Your task to perform on an android device: Is it going to rain this weekend? Image 0: 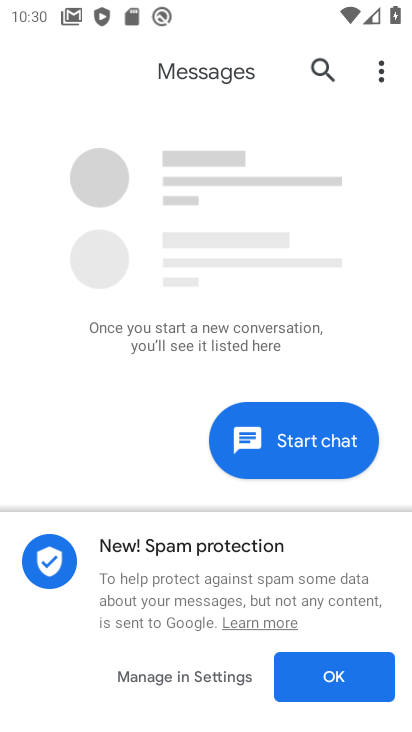
Step 0: press home button
Your task to perform on an android device: Is it going to rain this weekend? Image 1: 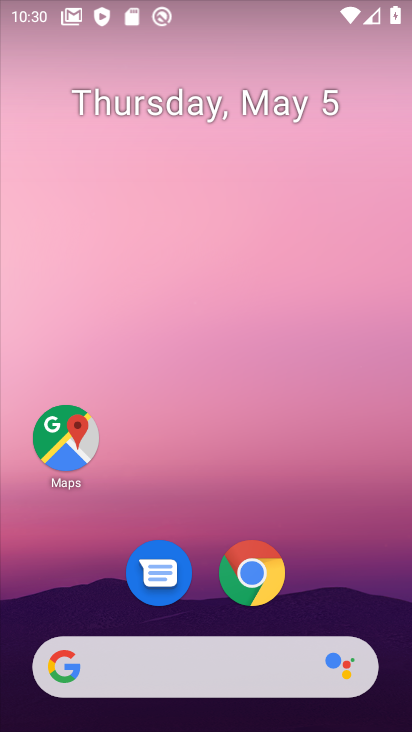
Step 1: click (105, 663)
Your task to perform on an android device: Is it going to rain this weekend? Image 2: 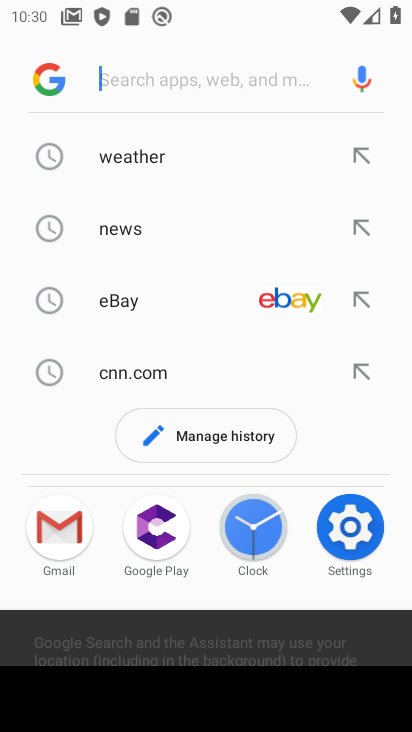
Step 2: click (115, 241)
Your task to perform on an android device: Is it going to rain this weekend? Image 3: 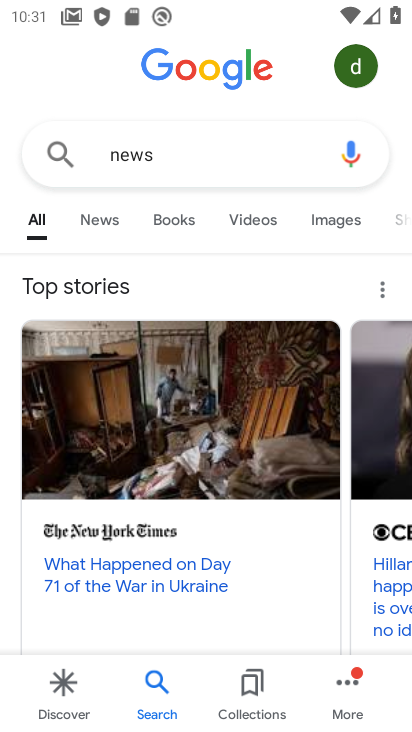
Step 3: task complete